Your task to perform on an android device: turn on bluetooth scan Image 0: 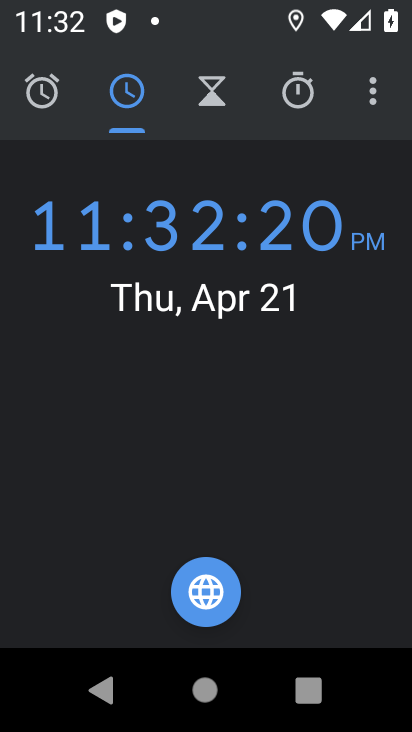
Step 0: press home button
Your task to perform on an android device: turn on bluetooth scan Image 1: 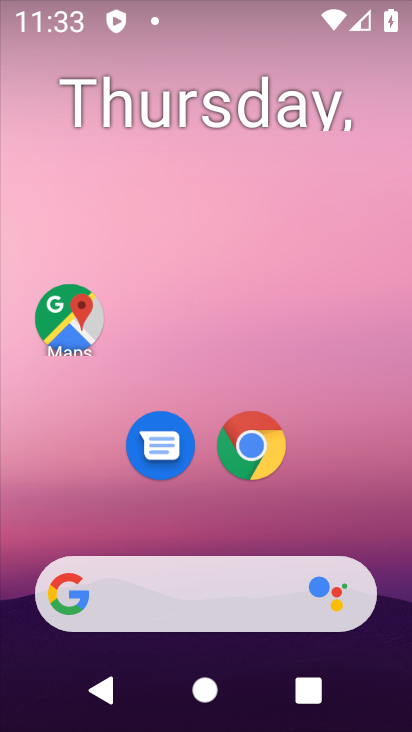
Step 1: drag from (364, 478) to (291, 17)
Your task to perform on an android device: turn on bluetooth scan Image 2: 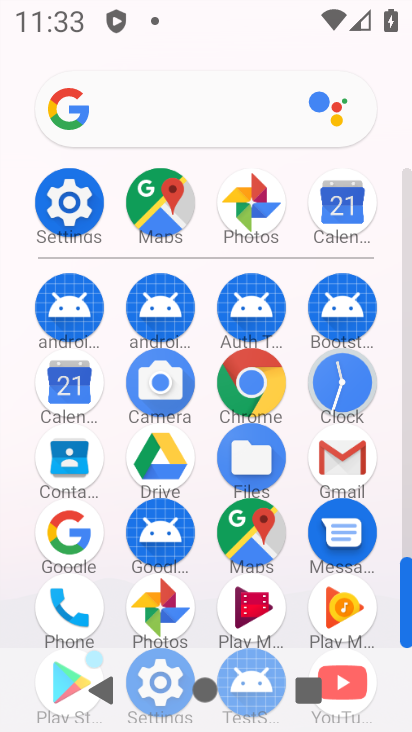
Step 2: click (74, 199)
Your task to perform on an android device: turn on bluetooth scan Image 3: 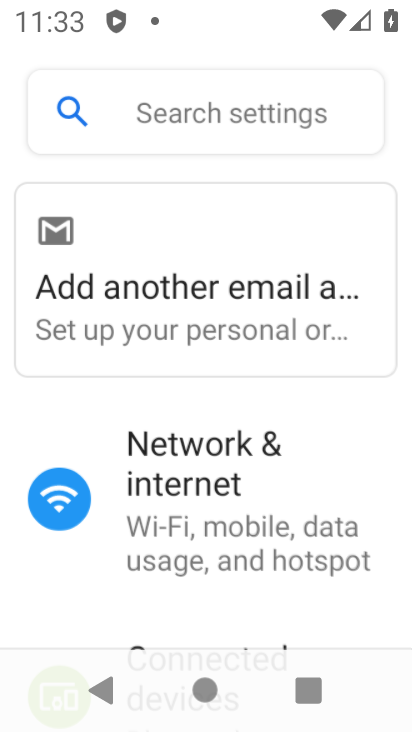
Step 3: drag from (240, 549) to (267, 161)
Your task to perform on an android device: turn on bluetooth scan Image 4: 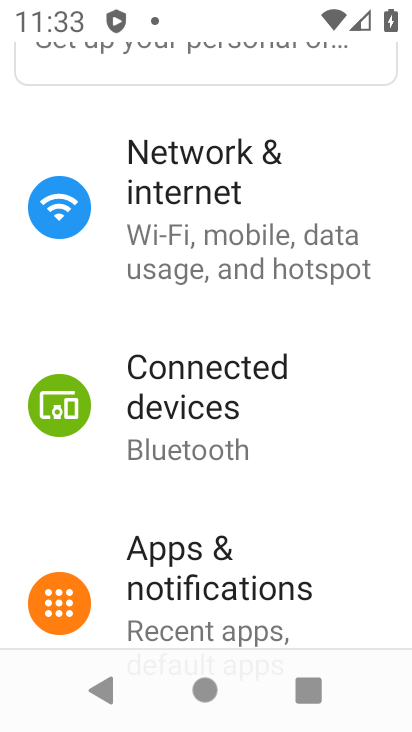
Step 4: drag from (187, 542) to (233, 114)
Your task to perform on an android device: turn on bluetooth scan Image 5: 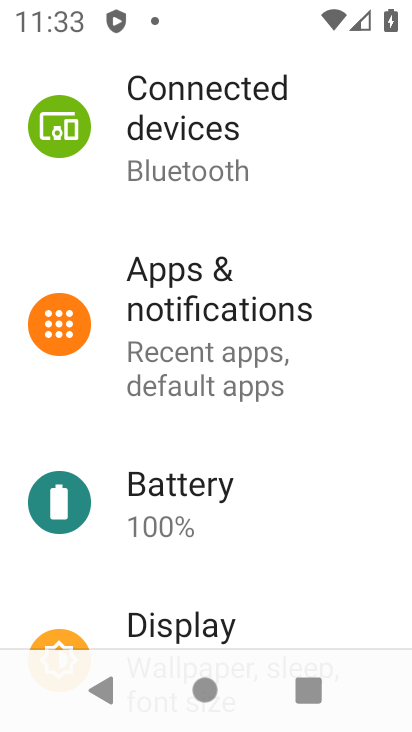
Step 5: drag from (253, 531) to (272, 172)
Your task to perform on an android device: turn on bluetooth scan Image 6: 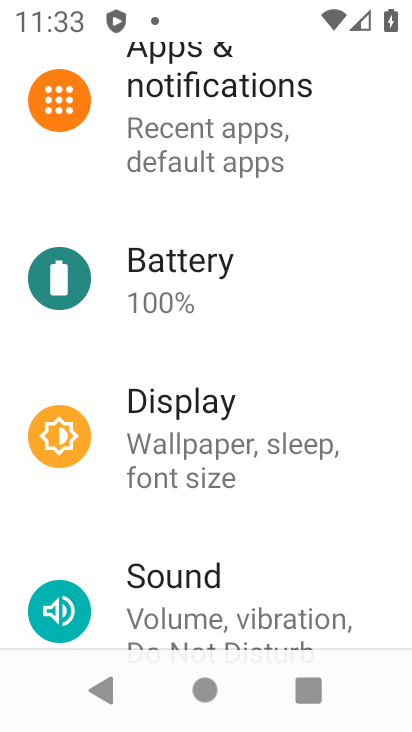
Step 6: drag from (234, 564) to (248, 143)
Your task to perform on an android device: turn on bluetooth scan Image 7: 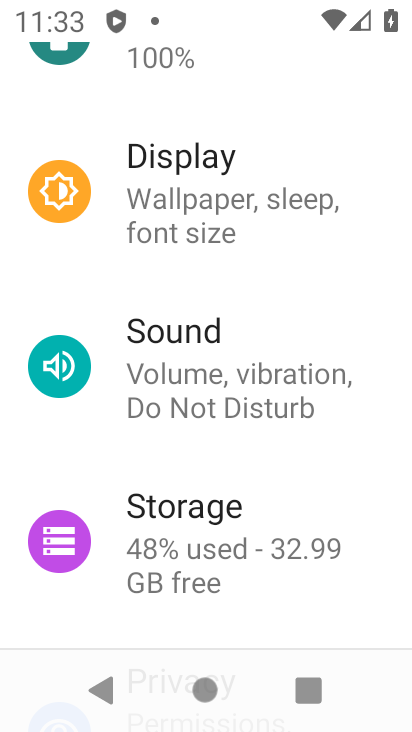
Step 7: drag from (234, 527) to (227, 188)
Your task to perform on an android device: turn on bluetooth scan Image 8: 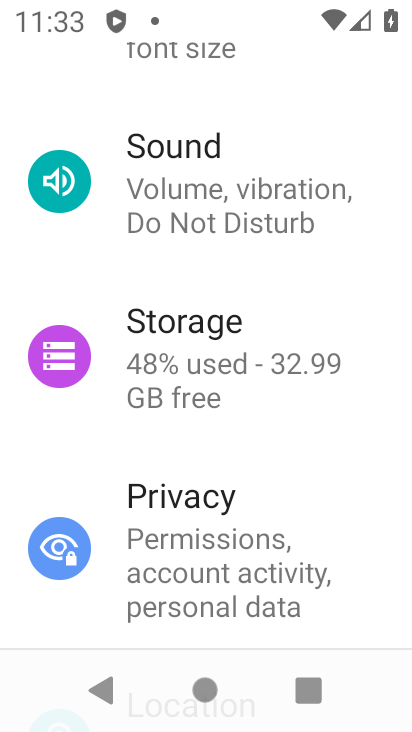
Step 8: drag from (249, 540) to (293, 112)
Your task to perform on an android device: turn on bluetooth scan Image 9: 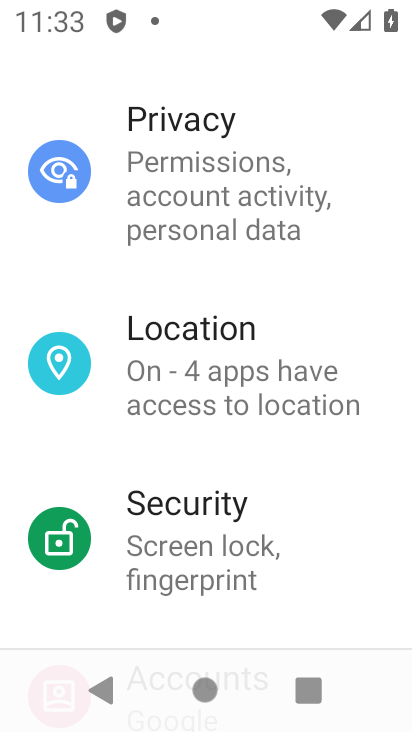
Step 9: click (238, 373)
Your task to perform on an android device: turn on bluetooth scan Image 10: 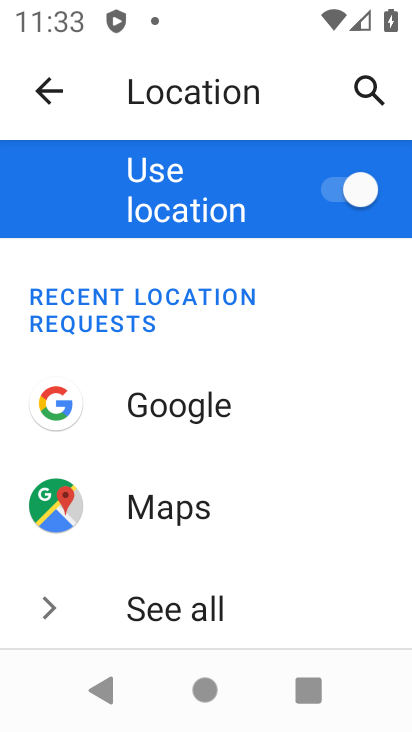
Step 10: drag from (205, 569) to (218, 173)
Your task to perform on an android device: turn on bluetooth scan Image 11: 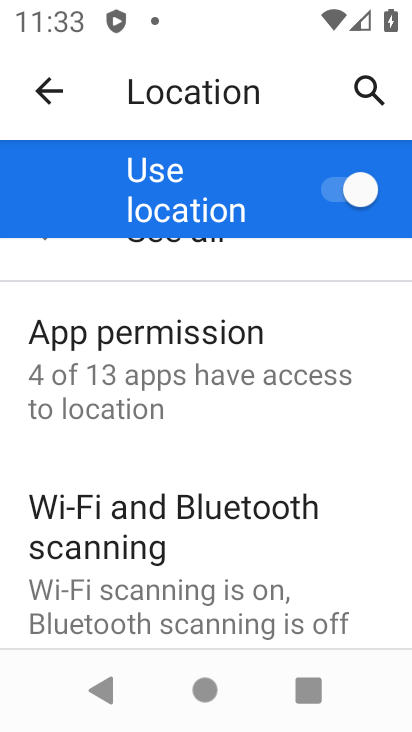
Step 11: click (226, 534)
Your task to perform on an android device: turn on bluetooth scan Image 12: 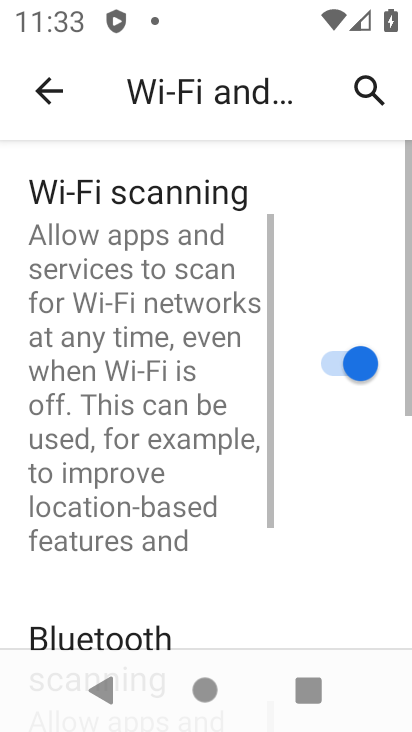
Step 12: drag from (247, 535) to (263, 92)
Your task to perform on an android device: turn on bluetooth scan Image 13: 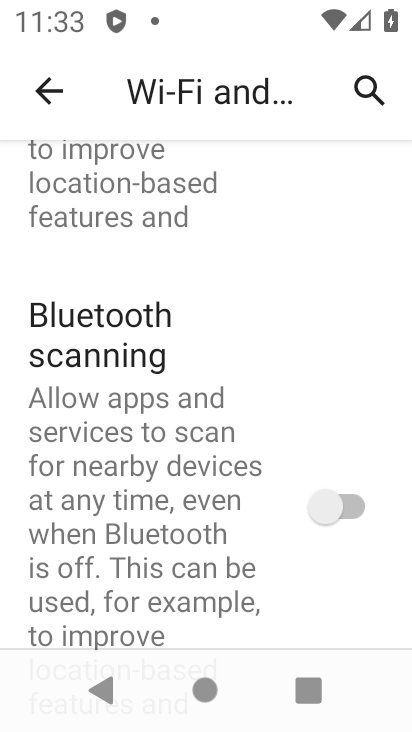
Step 13: click (316, 519)
Your task to perform on an android device: turn on bluetooth scan Image 14: 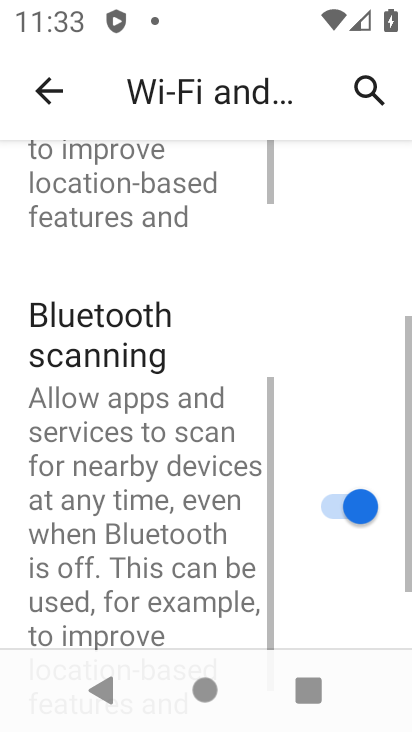
Step 14: task complete